Your task to perform on an android device: Open CNN.com Image 0: 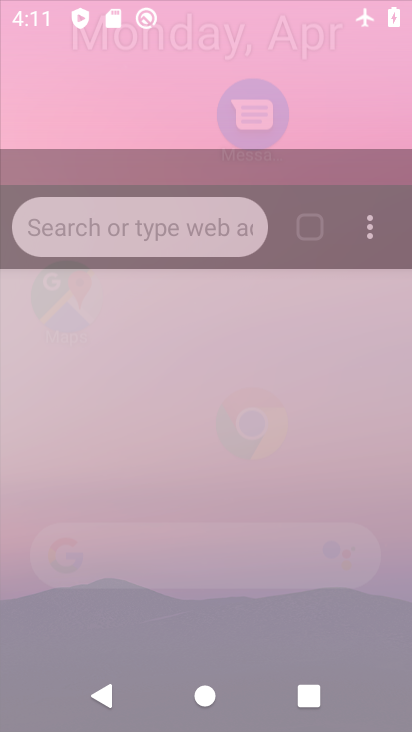
Step 0: click (68, 361)
Your task to perform on an android device: Open CNN.com Image 1: 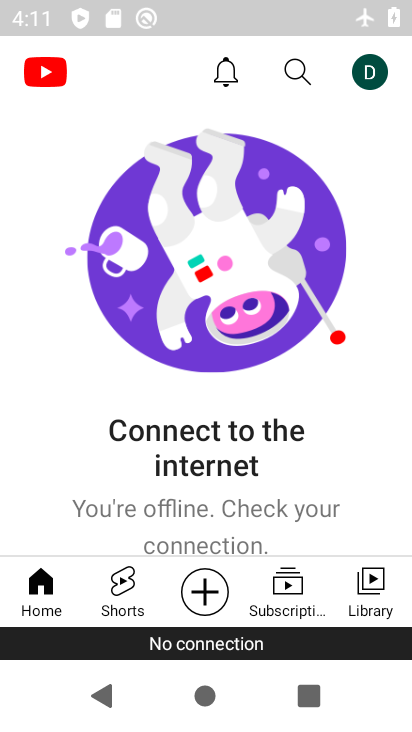
Step 1: press home button
Your task to perform on an android device: Open CNN.com Image 2: 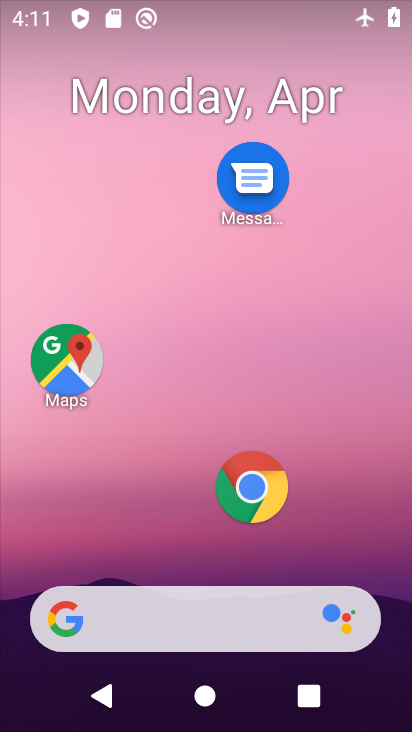
Step 2: click (272, 484)
Your task to perform on an android device: Open CNN.com Image 3: 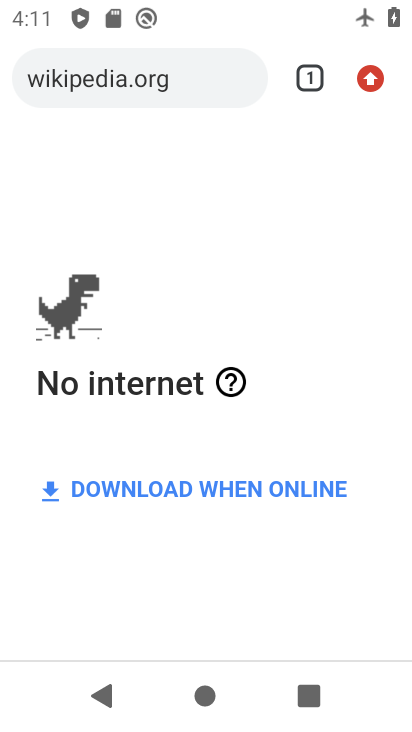
Step 3: click (148, 78)
Your task to perform on an android device: Open CNN.com Image 4: 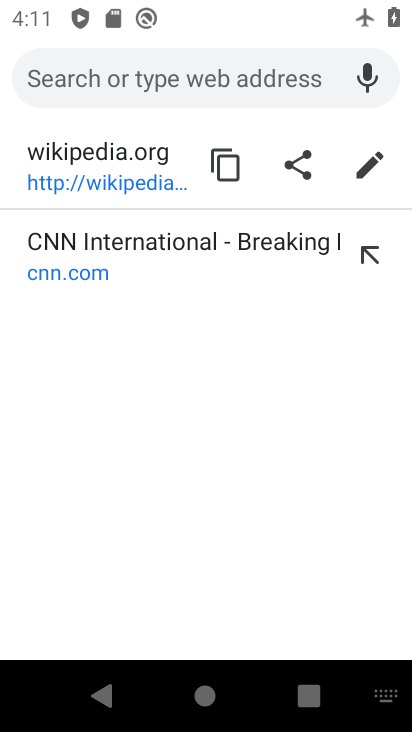
Step 4: type "CNN.com"
Your task to perform on an android device: Open CNN.com Image 5: 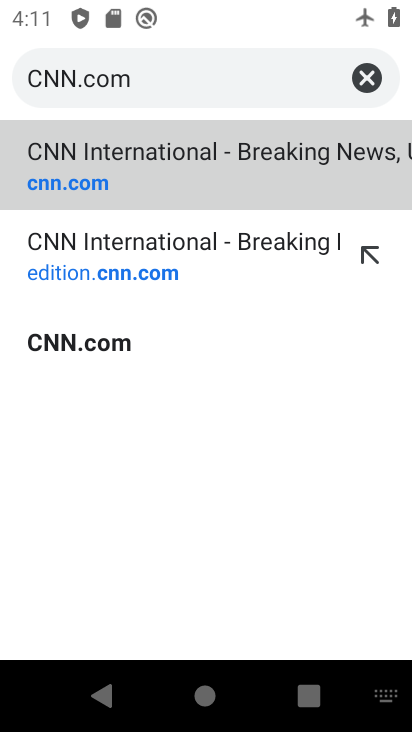
Step 5: click (124, 328)
Your task to perform on an android device: Open CNN.com Image 6: 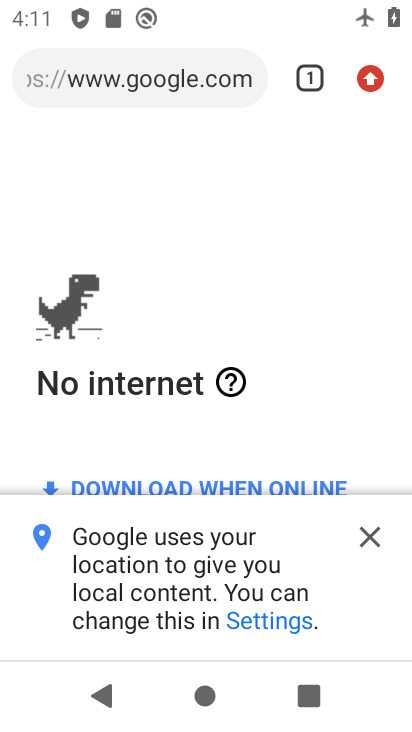
Step 6: task complete